Your task to perform on an android device: Go to Google Image 0: 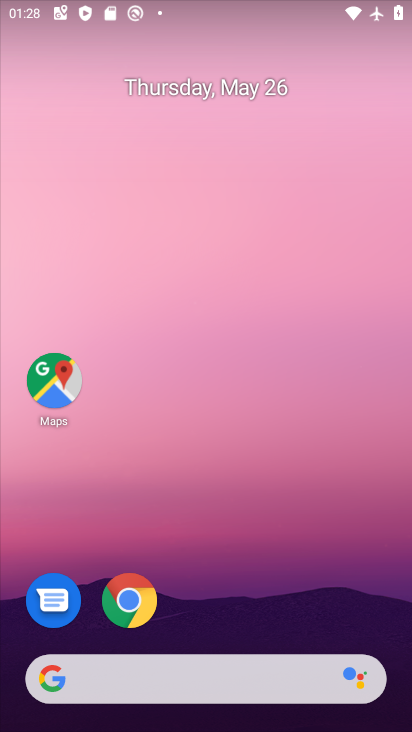
Step 0: drag from (271, 501) to (308, 171)
Your task to perform on an android device: Go to Google Image 1: 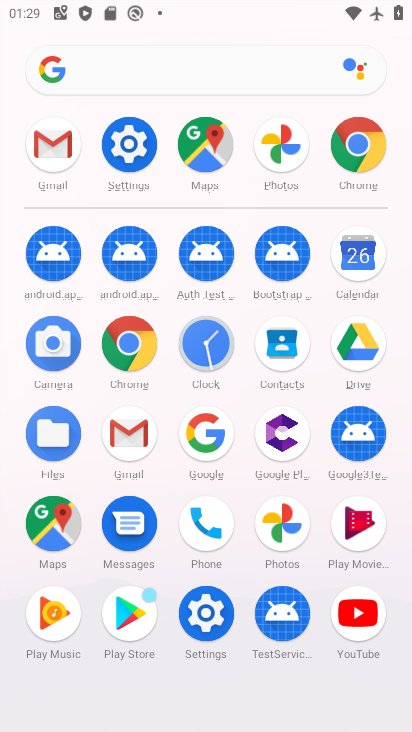
Step 1: click (212, 434)
Your task to perform on an android device: Go to Google Image 2: 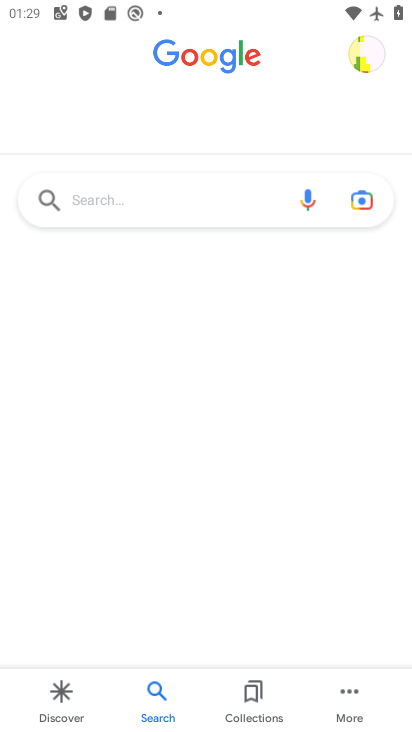
Step 2: task complete